Your task to perform on an android device: see creations saved in the google photos Image 0: 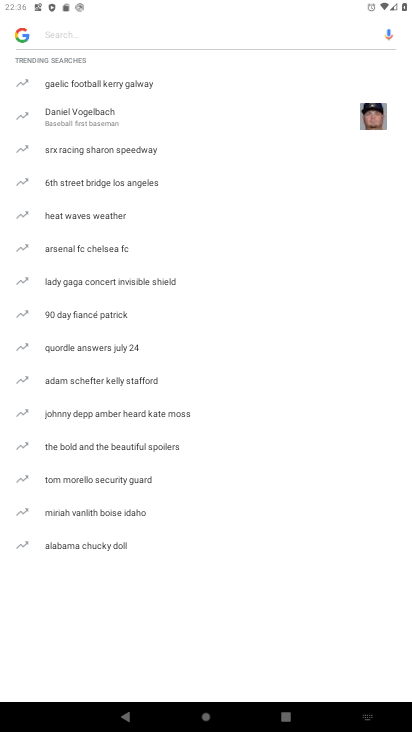
Step 0: press home button
Your task to perform on an android device: see creations saved in the google photos Image 1: 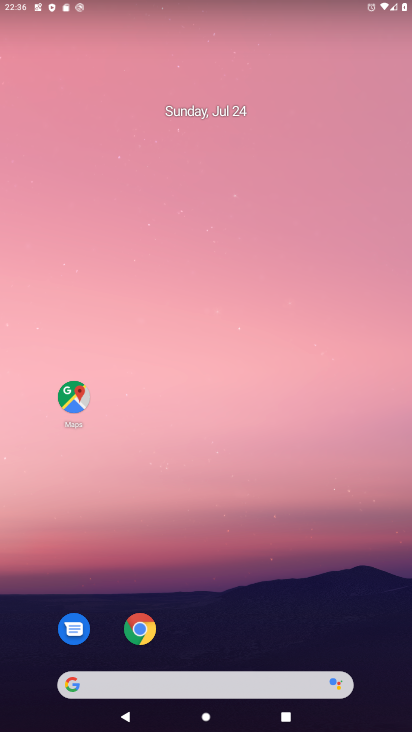
Step 1: drag from (178, 633) to (209, 251)
Your task to perform on an android device: see creations saved in the google photos Image 2: 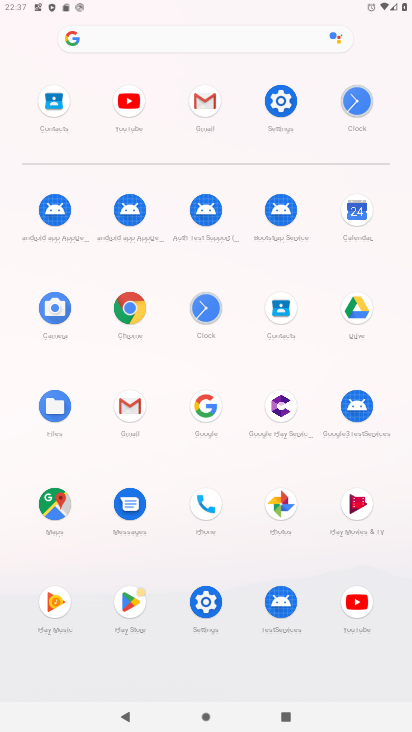
Step 2: click (288, 506)
Your task to perform on an android device: see creations saved in the google photos Image 3: 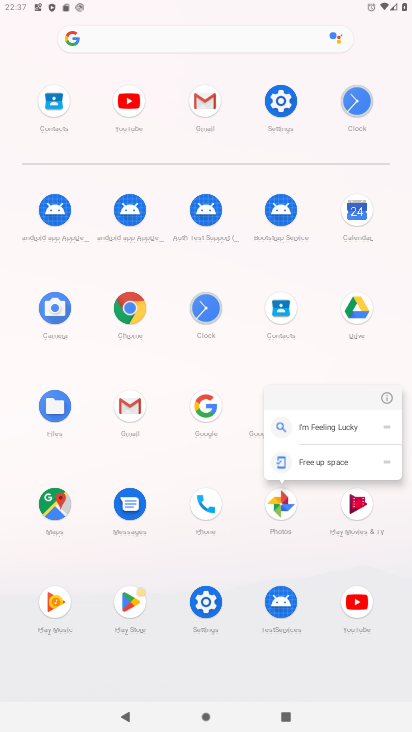
Step 3: click (384, 405)
Your task to perform on an android device: see creations saved in the google photos Image 4: 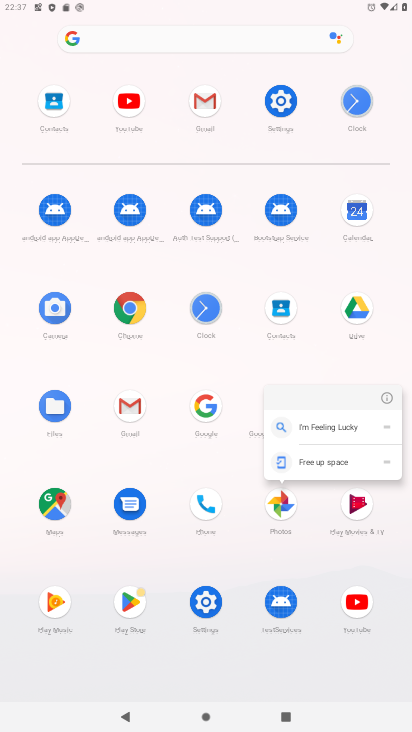
Step 4: click (384, 404)
Your task to perform on an android device: see creations saved in the google photos Image 5: 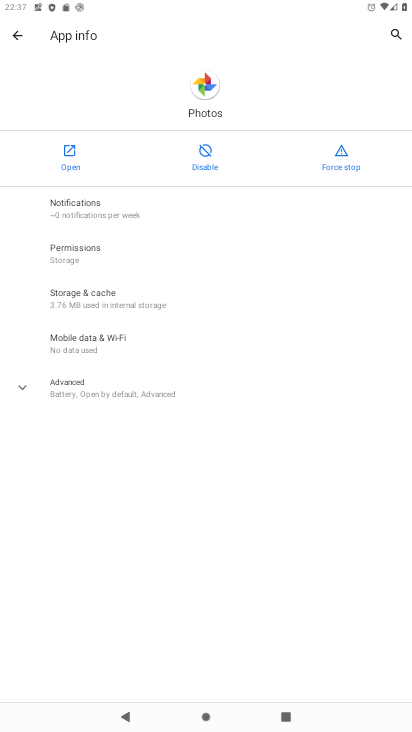
Step 5: click (60, 144)
Your task to perform on an android device: see creations saved in the google photos Image 6: 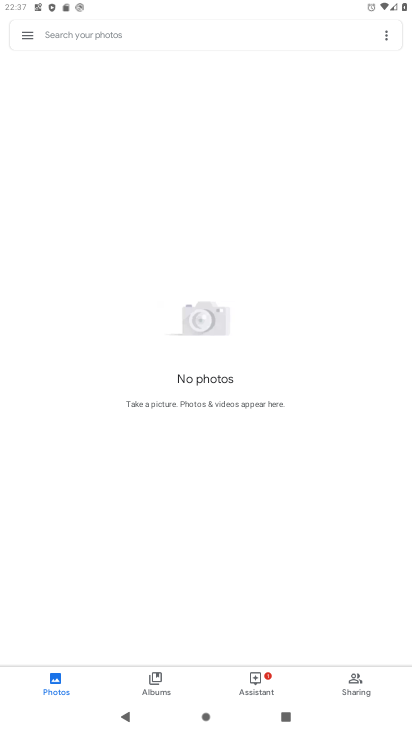
Step 6: click (151, 684)
Your task to perform on an android device: see creations saved in the google photos Image 7: 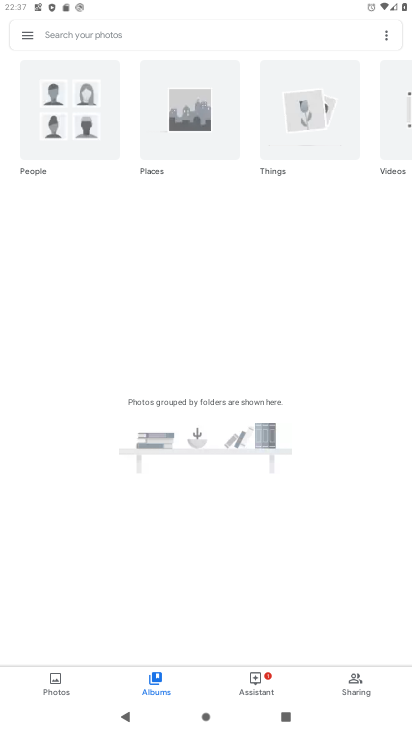
Step 7: click (127, 20)
Your task to perform on an android device: see creations saved in the google photos Image 8: 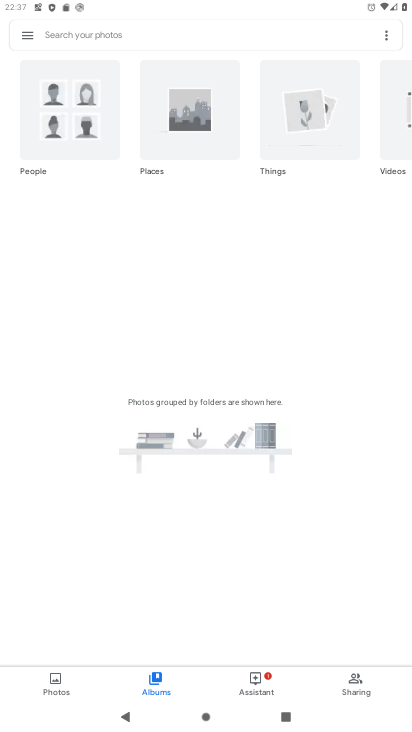
Step 8: click (95, 36)
Your task to perform on an android device: see creations saved in the google photos Image 9: 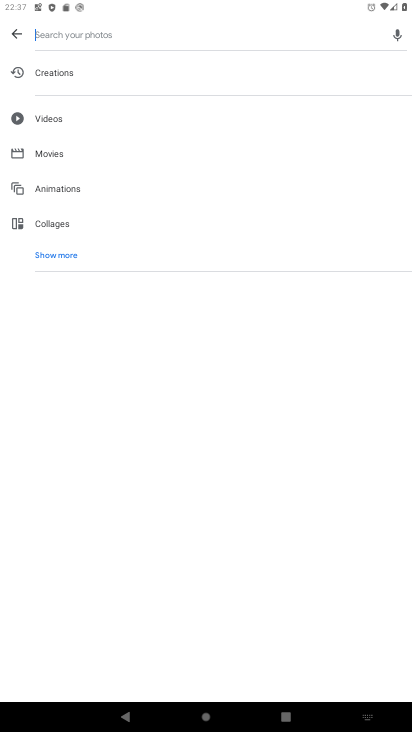
Step 9: click (54, 252)
Your task to perform on an android device: see creations saved in the google photos Image 10: 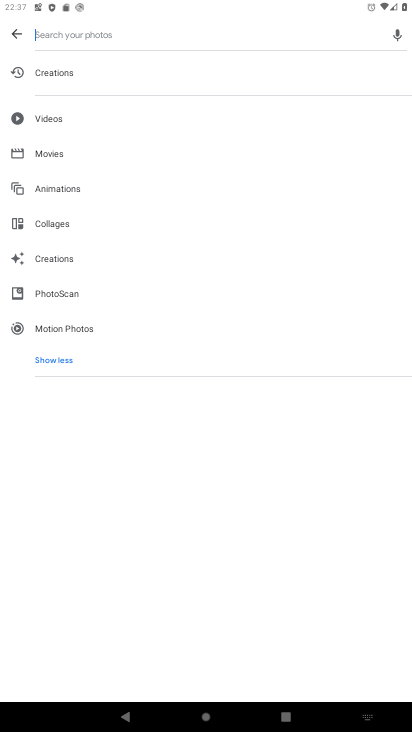
Step 10: click (58, 252)
Your task to perform on an android device: see creations saved in the google photos Image 11: 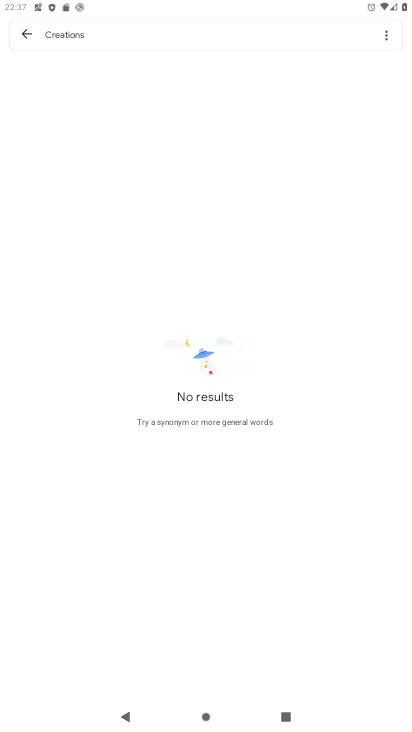
Step 11: task complete